Your task to perform on an android device: turn on sleep mode Image 0: 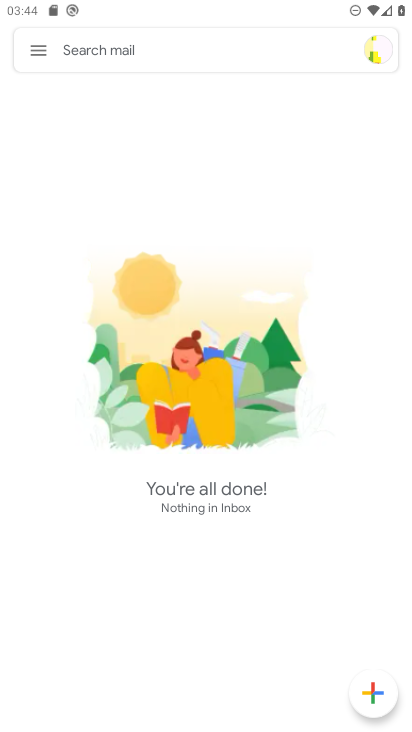
Step 0: press home button
Your task to perform on an android device: turn on sleep mode Image 1: 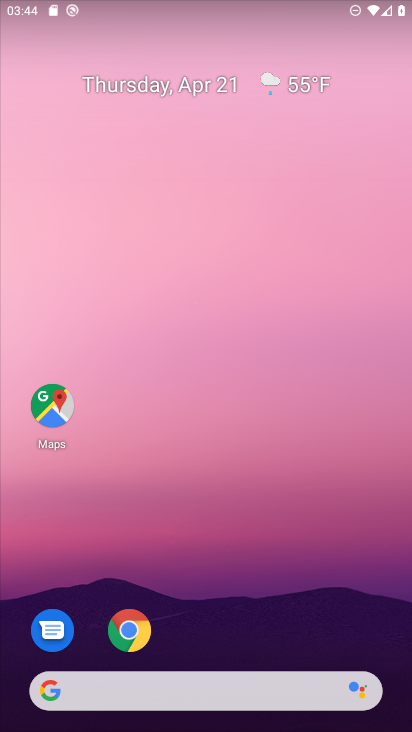
Step 1: drag from (234, 641) to (58, 83)
Your task to perform on an android device: turn on sleep mode Image 2: 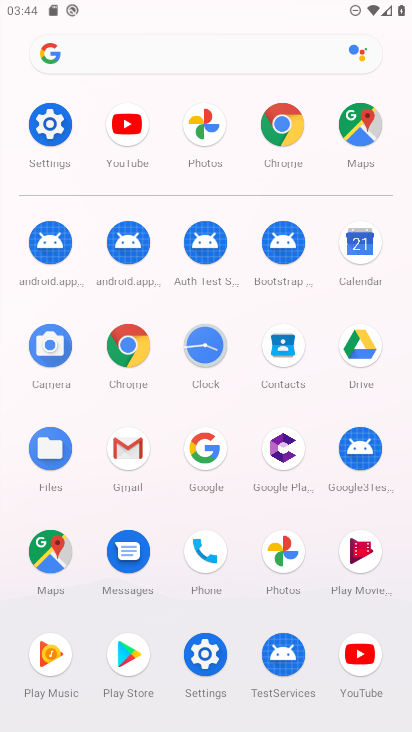
Step 2: click (52, 134)
Your task to perform on an android device: turn on sleep mode Image 3: 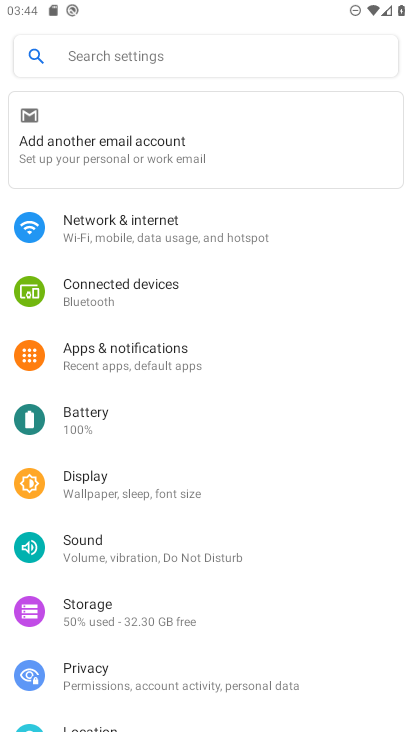
Step 3: click (232, 487)
Your task to perform on an android device: turn on sleep mode Image 4: 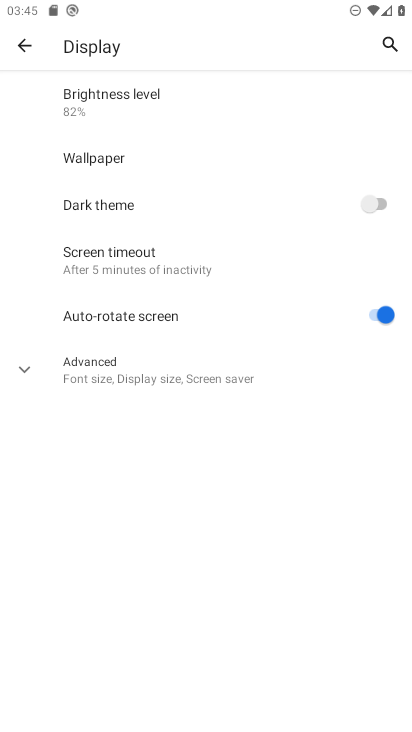
Step 4: click (99, 369)
Your task to perform on an android device: turn on sleep mode Image 5: 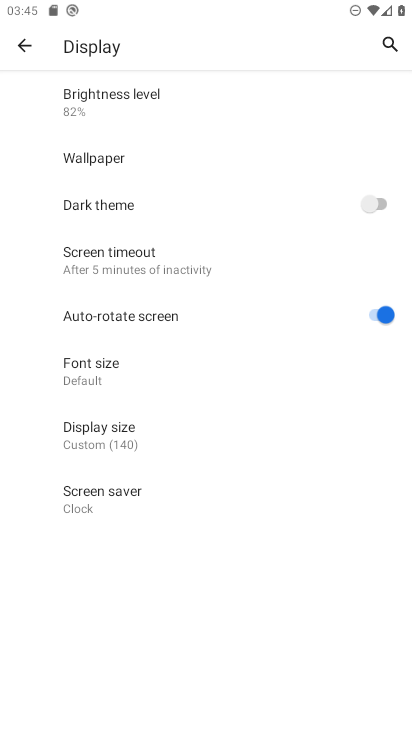
Step 5: click (196, 370)
Your task to perform on an android device: turn on sleep mode Image 6: 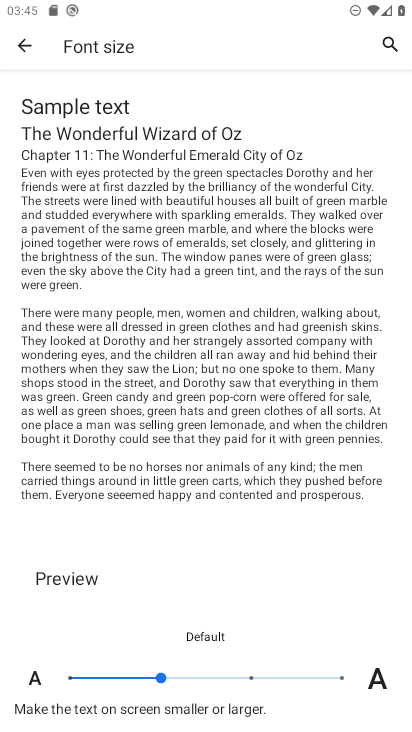
Step 6: click (249, 672)
Your task to perform on an android device: turn on sleep mode Image 7: 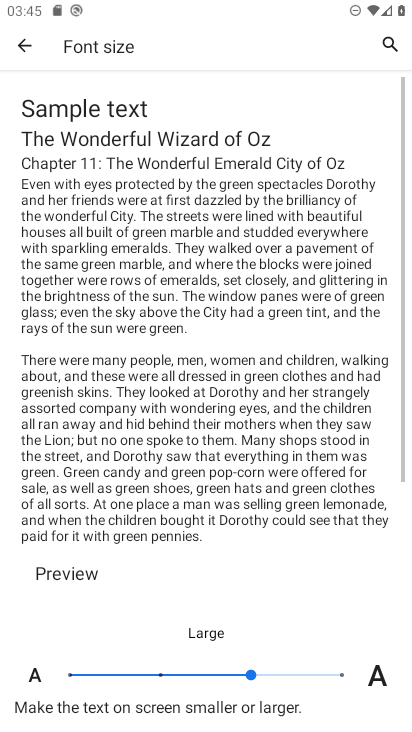
Step 7: task complete